Your task to perform on an android device: Search for Italian restaurants on Maps Image 0: 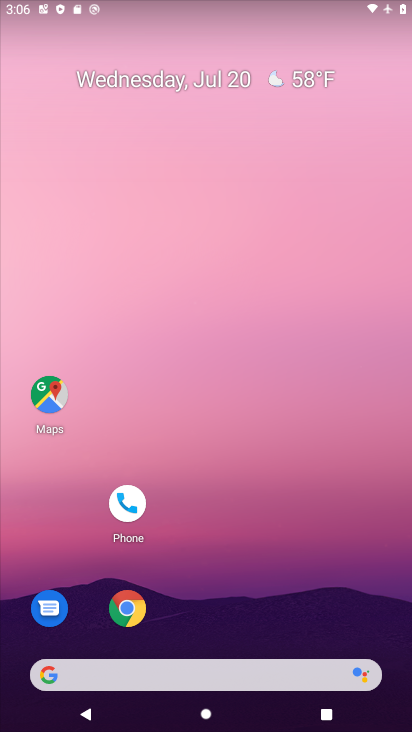
Step 0: drag from (270, 526) to (248, 1)
Your task to perform on an android device: Search for Italian restaurants on Maps Image 1: 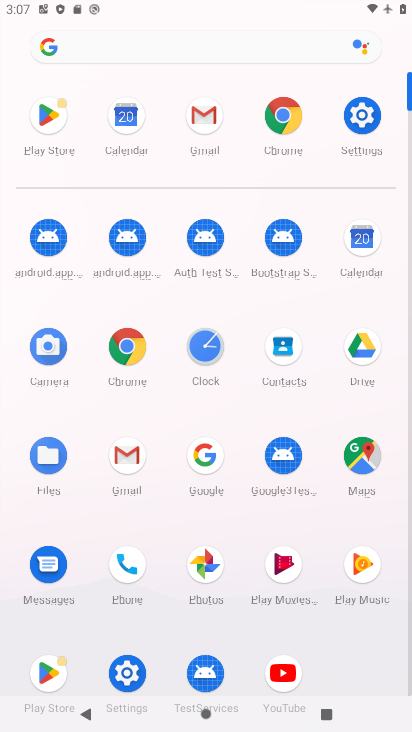
Step 1: click (361, 451)
Your task to perform on an android device: Search for Italian restaurants on Maps Image 2: 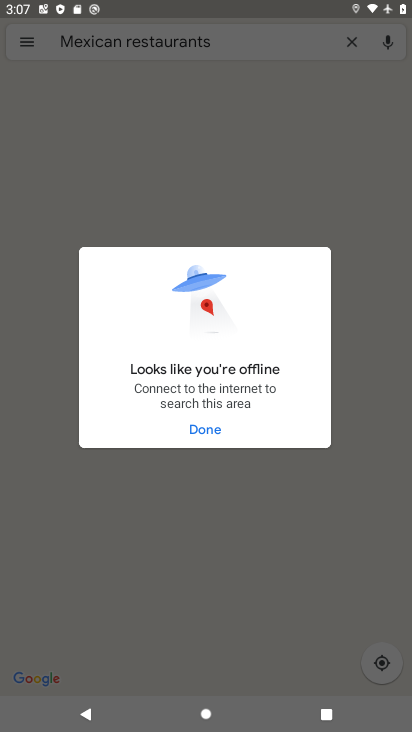
Step 2: click (245, 418)
Your task to perform on an android device: Search for Italian restaurants on Maps Image 3: 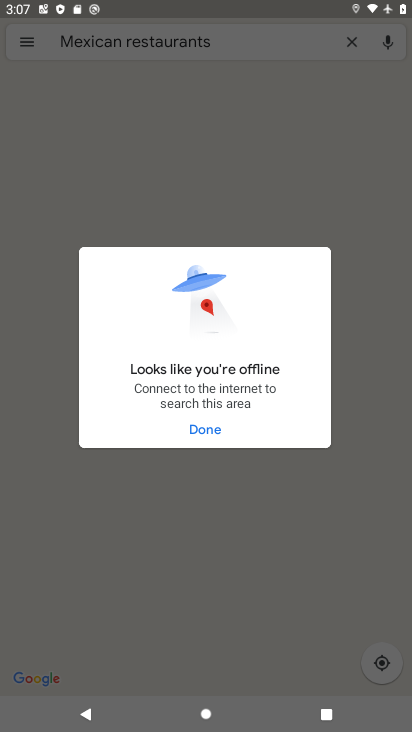
Step 3: click (220, 425)
Your task to perform on an android device: Search for Italian restaurants on Maps Image 4: 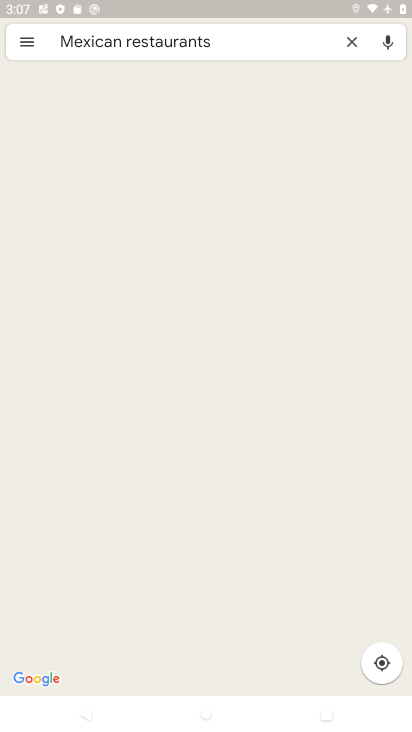
Step 4: click (353, 38)
Your task to perform on an android device: Search for Italian restaurants on Maps Image 5: 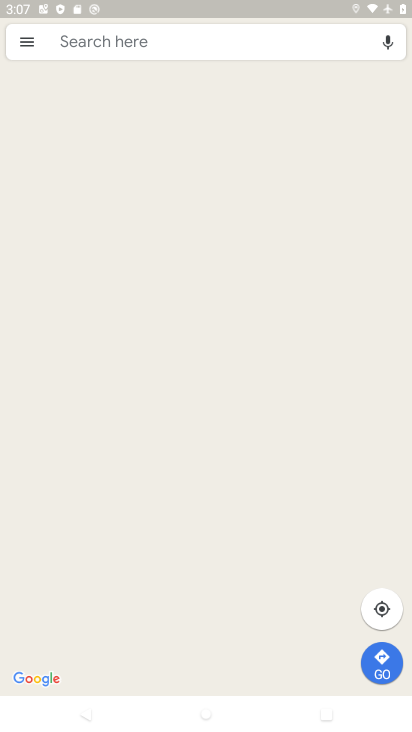
Step 5: click (264, 41)
Your task to perform on an android device: Search for Italian restaurants on Maps Image 6: 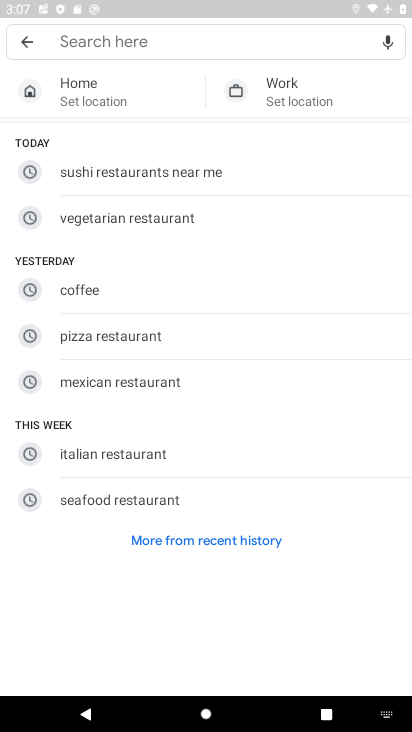
Step 6: type "Italian restaurants"
Your task to perform on an android device: Search for Italian restaurants on Maps Image 7: 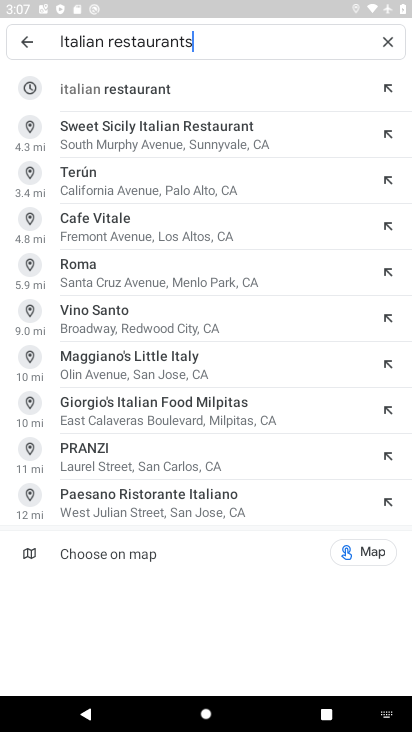
Step 7: press enter
Your task to perform on an android device: Search for Italian restaurants on Maps Image 8: 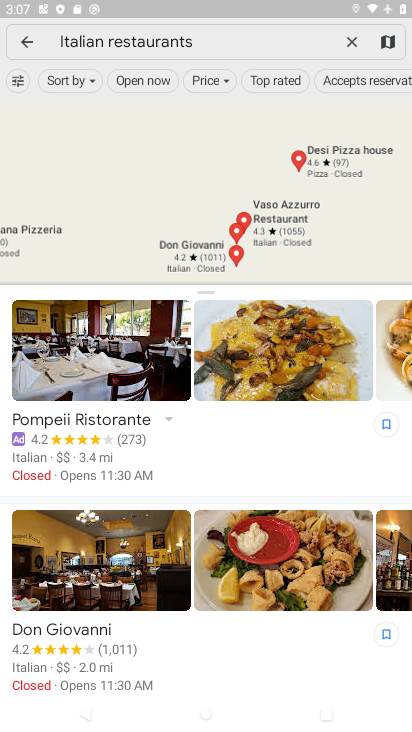
Step 8: task complete